Your task to perform on an android device: open a bookmark in the chrome app Image 0: 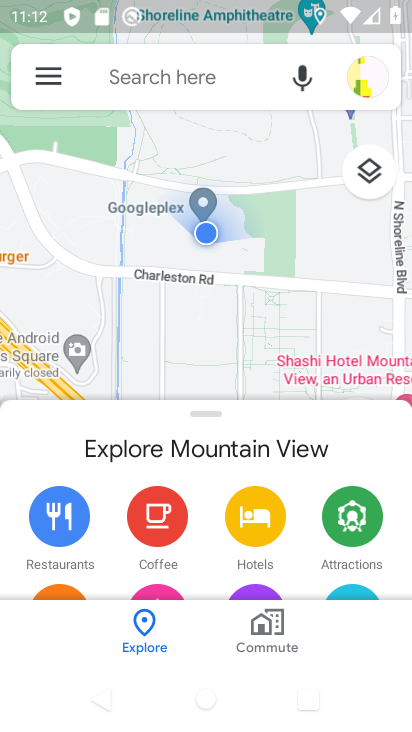
Step 0: press back button
Your task to perform on an android device: open a bookmark in the chrome app Image 1: 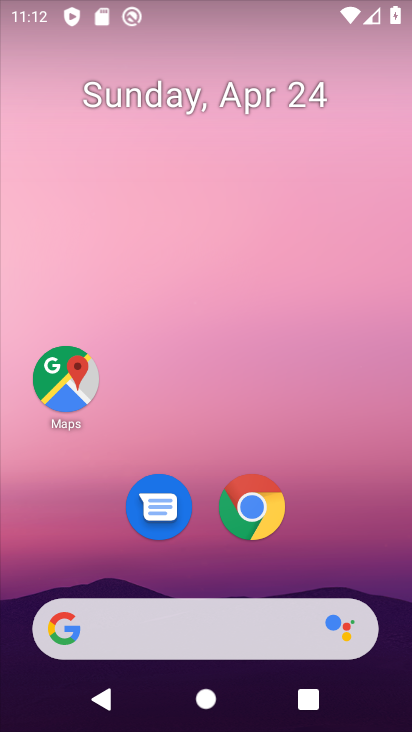
Step 1: click (254, 495)
Your task to perform on an android device: open a bookmark in the chrome app Image 2: 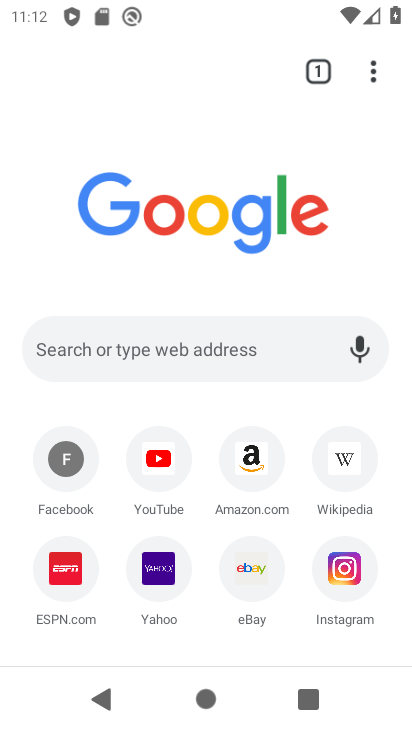
Step 2: task complete